Your task to perform on an android device: delete a single message in the gmail app Image 0: 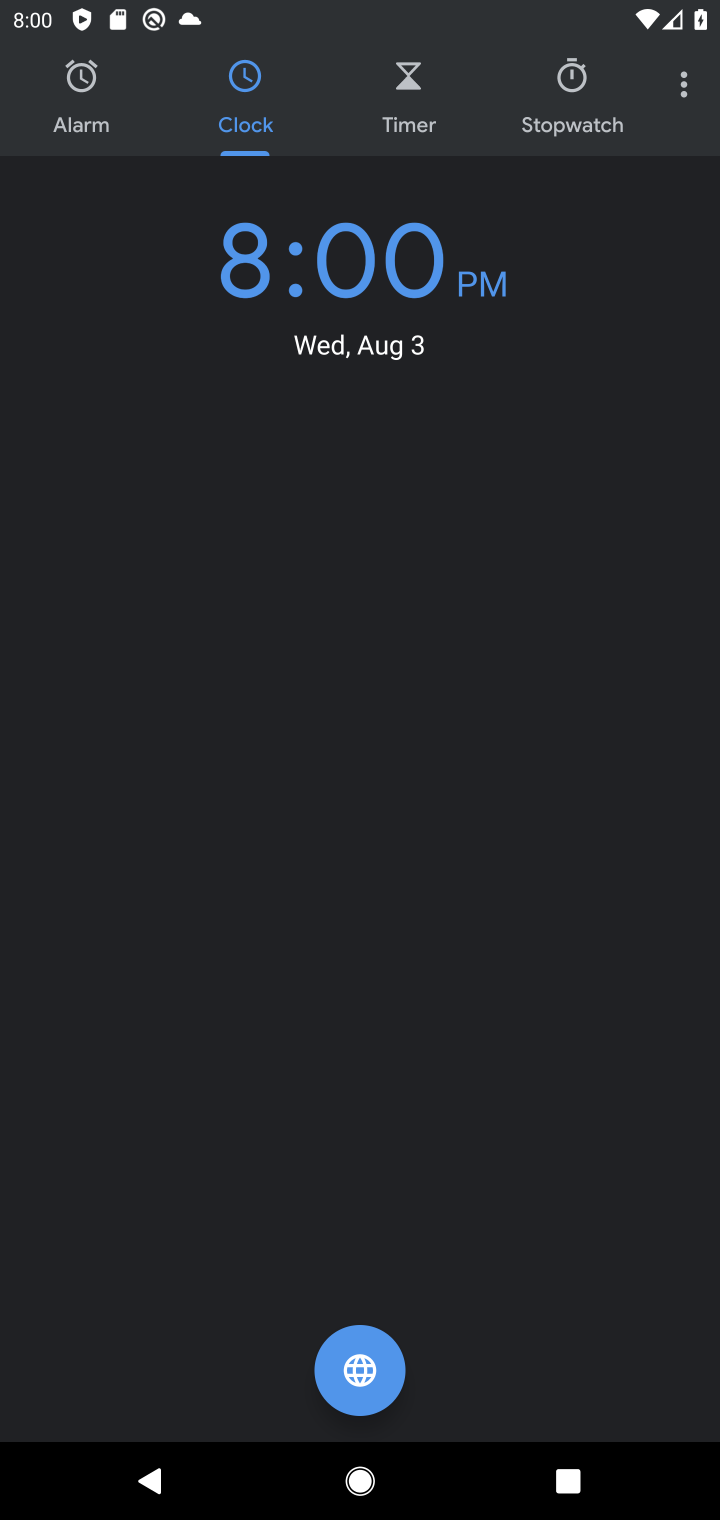
Step 0: press home button
Your task to perform on an android device: delete a single message in the gmail app Image 1: 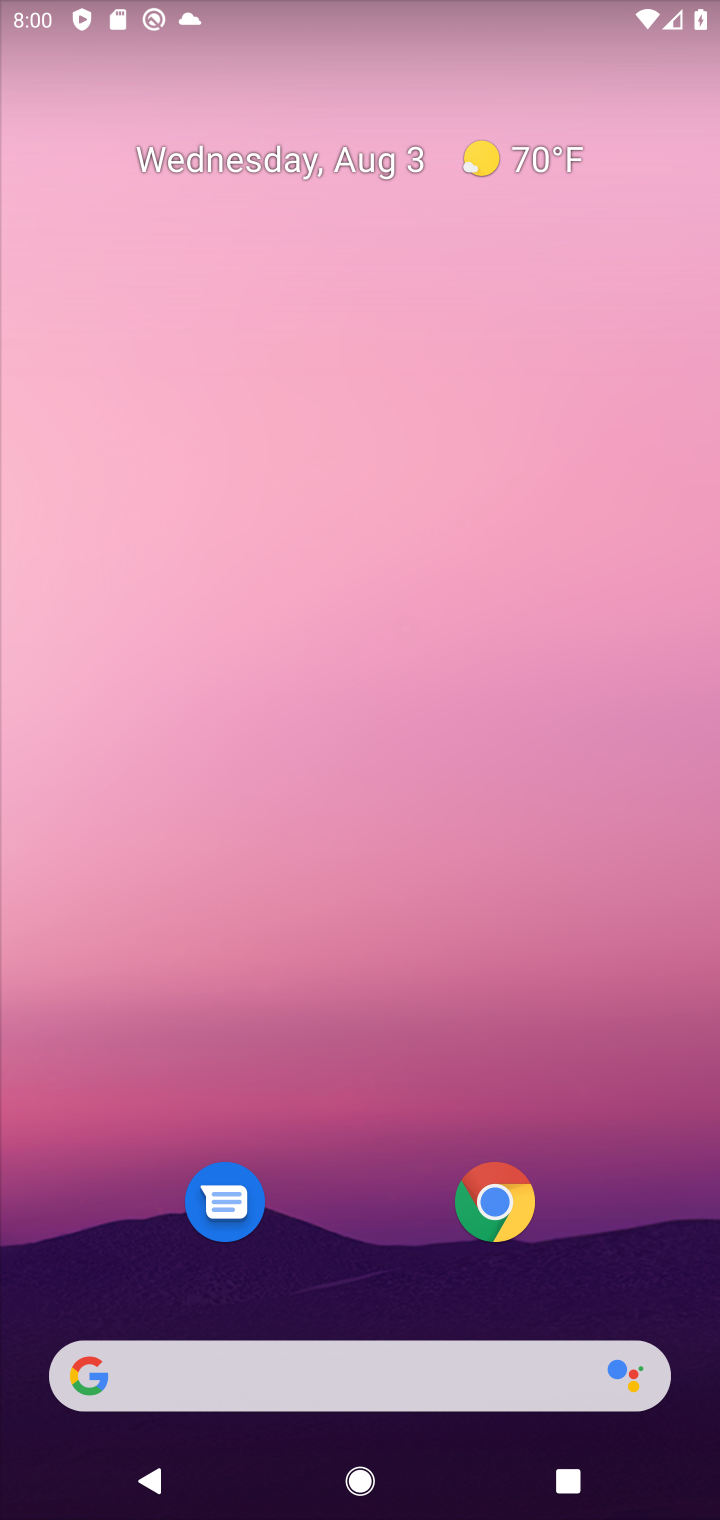
Step 1: drag from (303, 1378) to (412, 0)
Your task to perform on an android device: delete a single message in the gmail app Image 2: 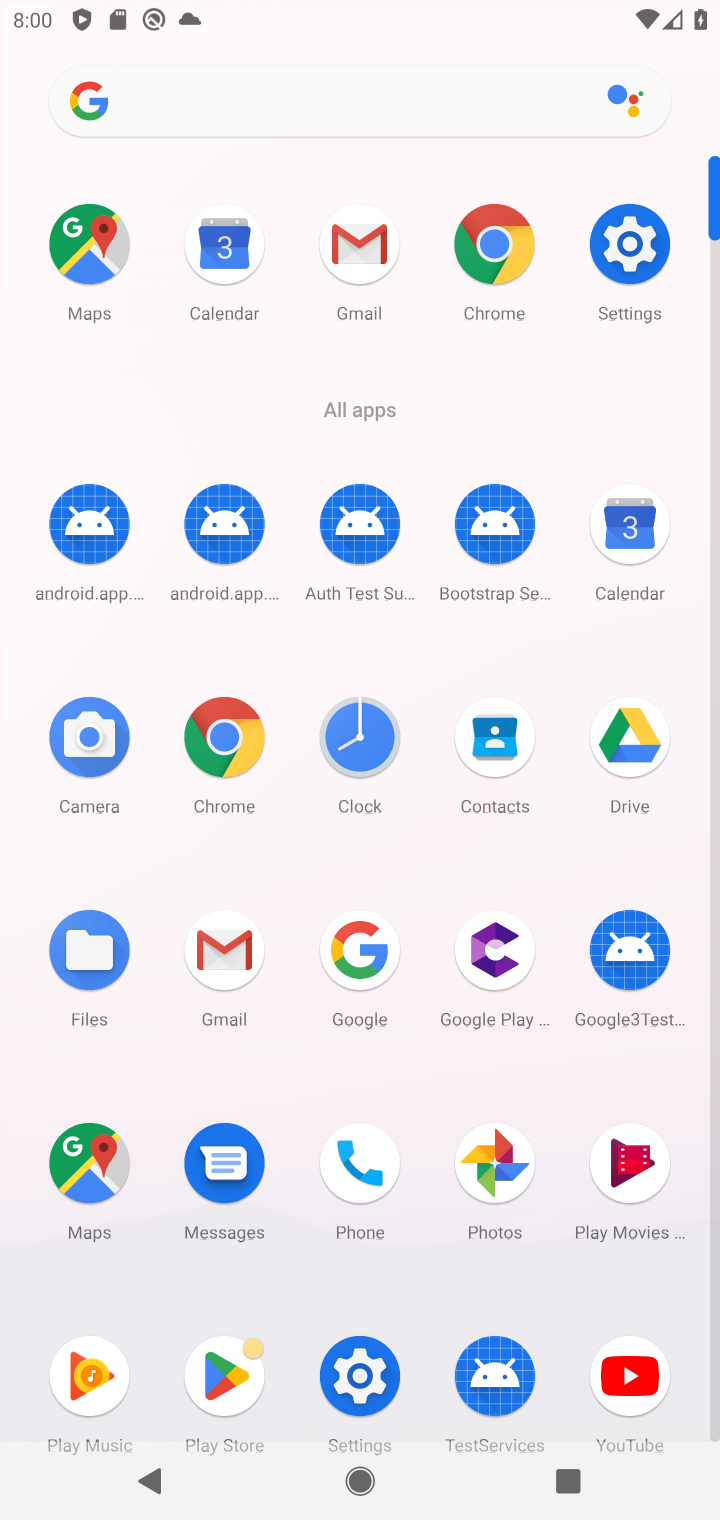
Step 2: click (359, 244)
Your task to perform on an android device: delete a single message in the gmail app Image 3: 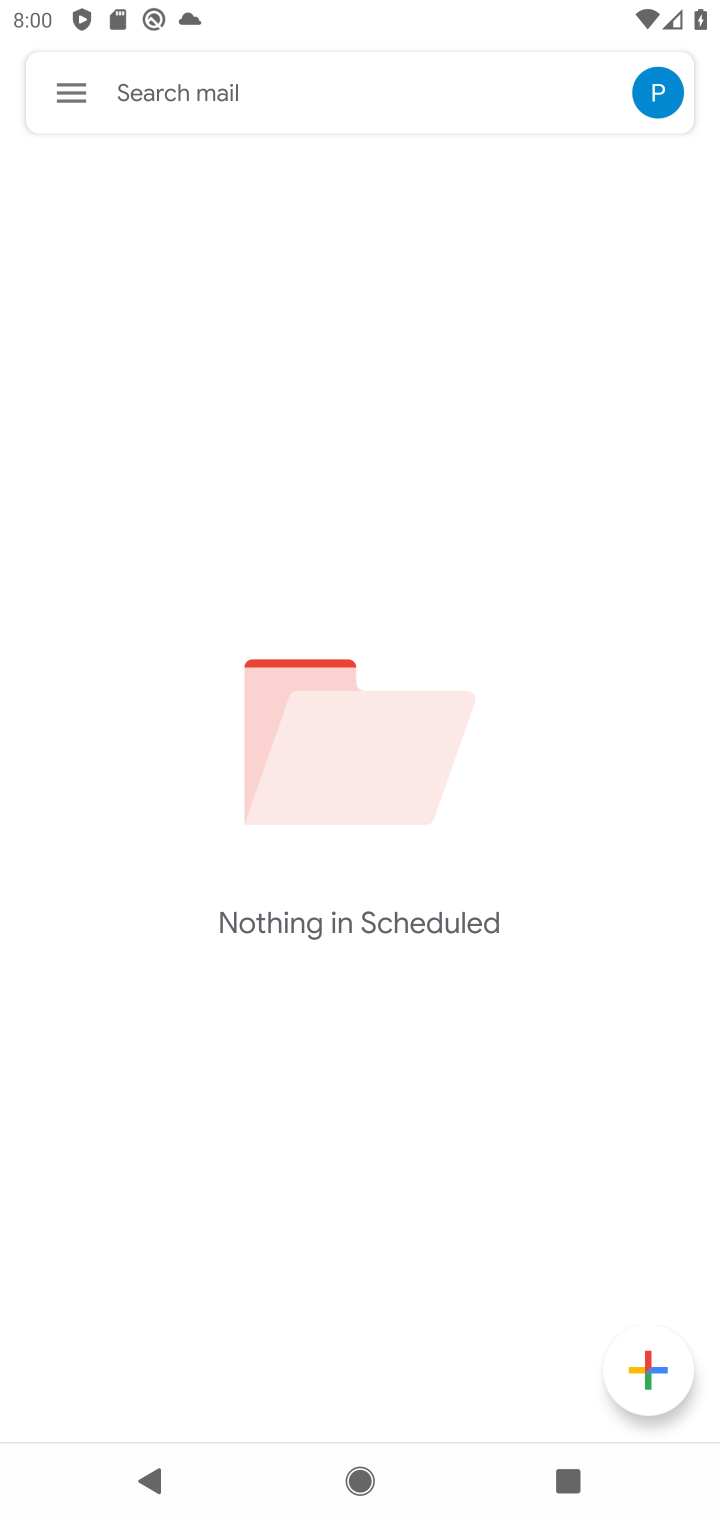
Step 3: click (72, 101)
Your task to perform on an android device: delete a single message in the gmail app Image 4: 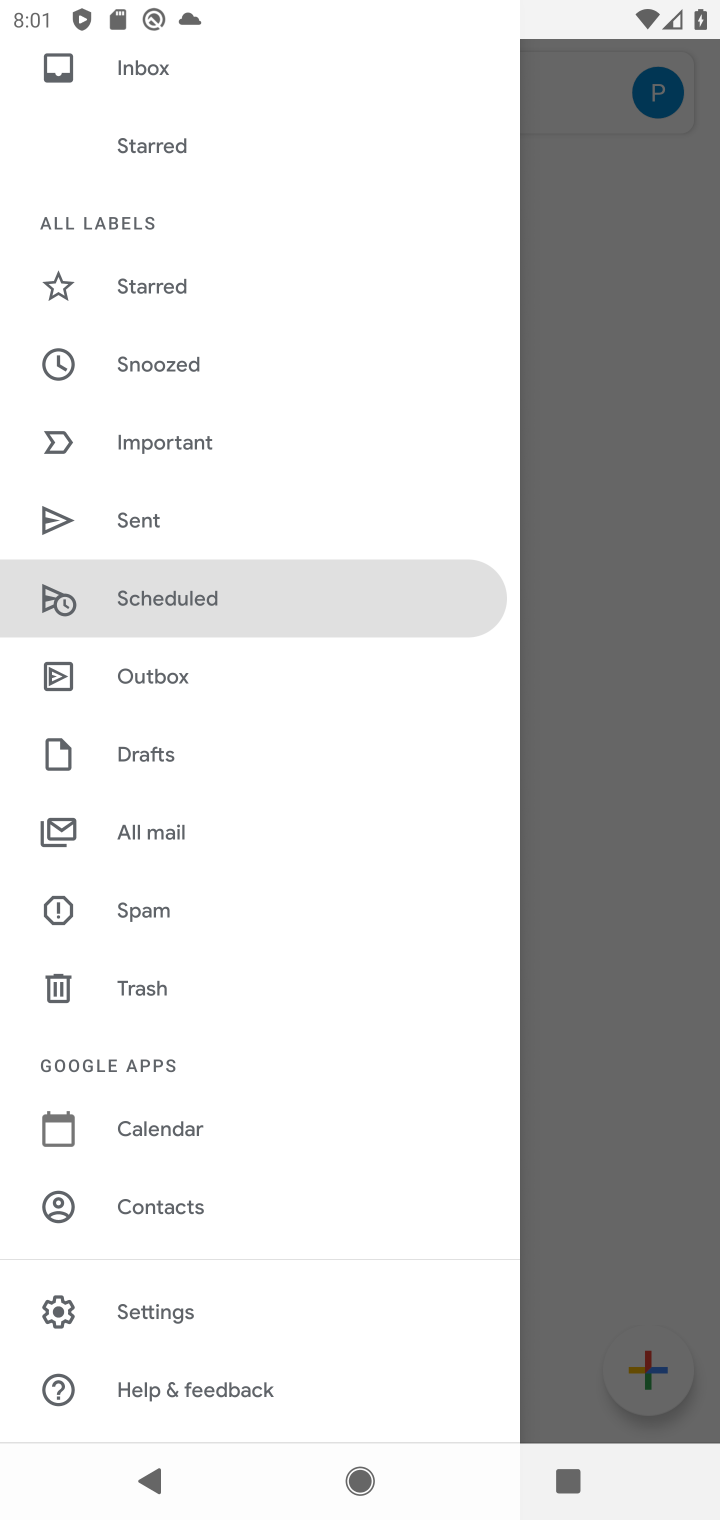
Step 4: click (176, 682)
Your task to perform on an android device: delete a single message in the gmail app Image 5: 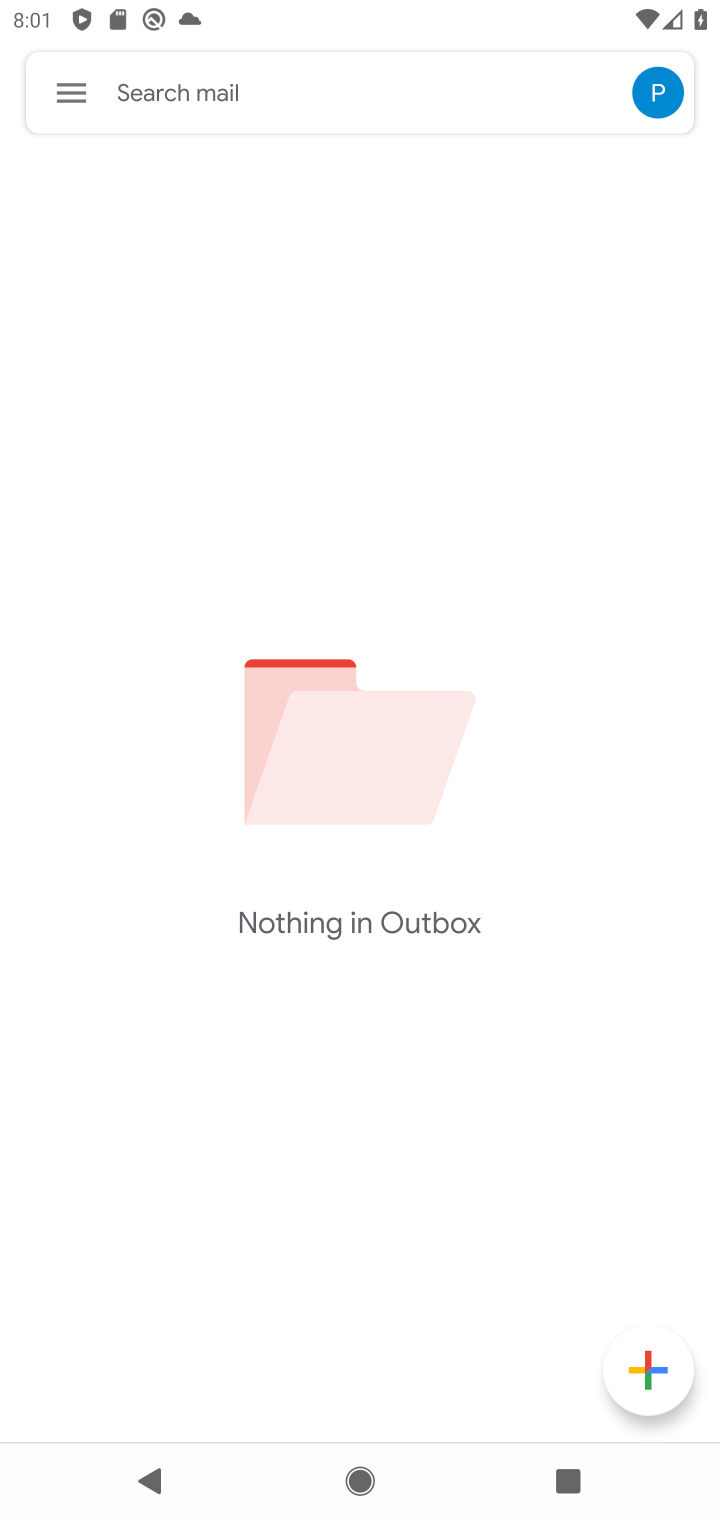
Step 5: click (65, 87)
Your task to perform on an android device: delete a single message in the gmail app Image 6: 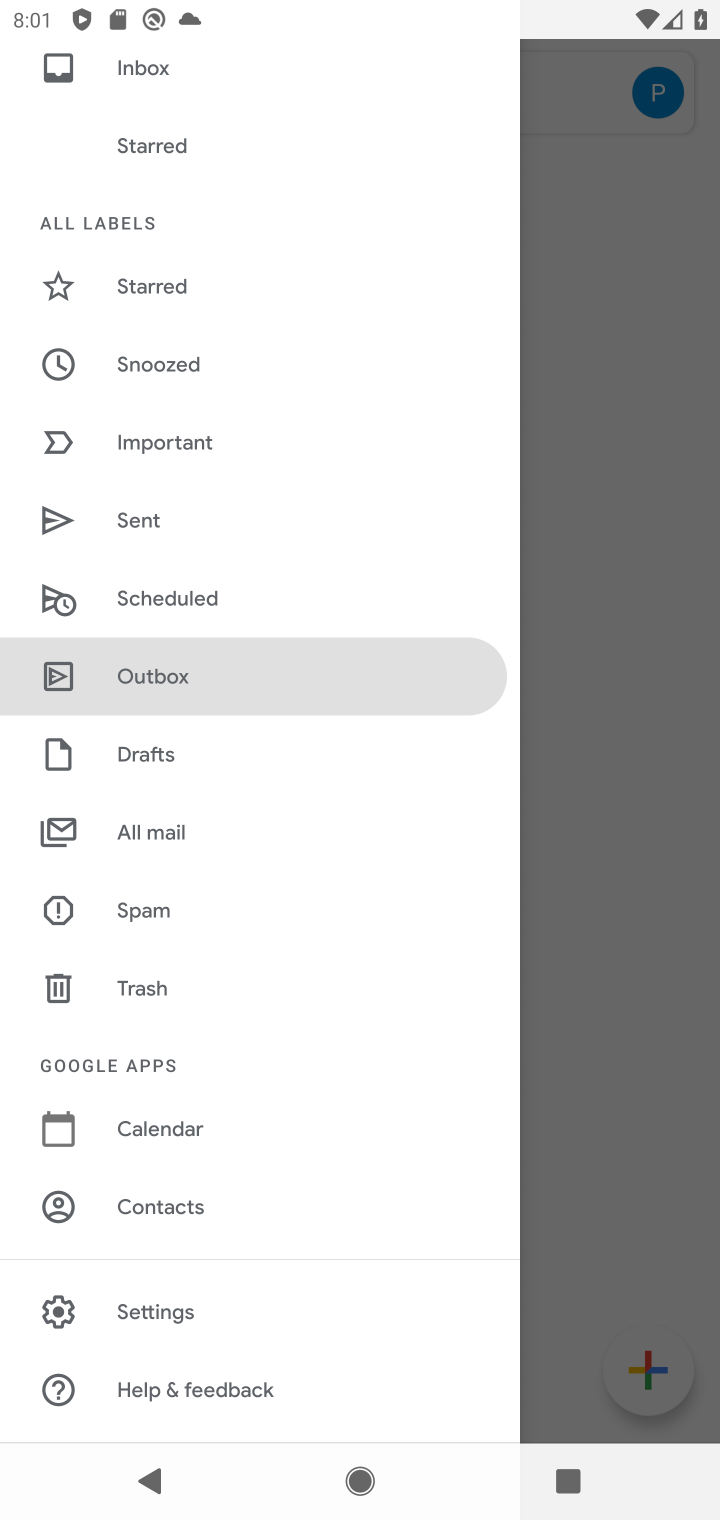
Step 6: click (175, 840)
Your task to perform on an android device: delete a single message in the gmail app Image 7: 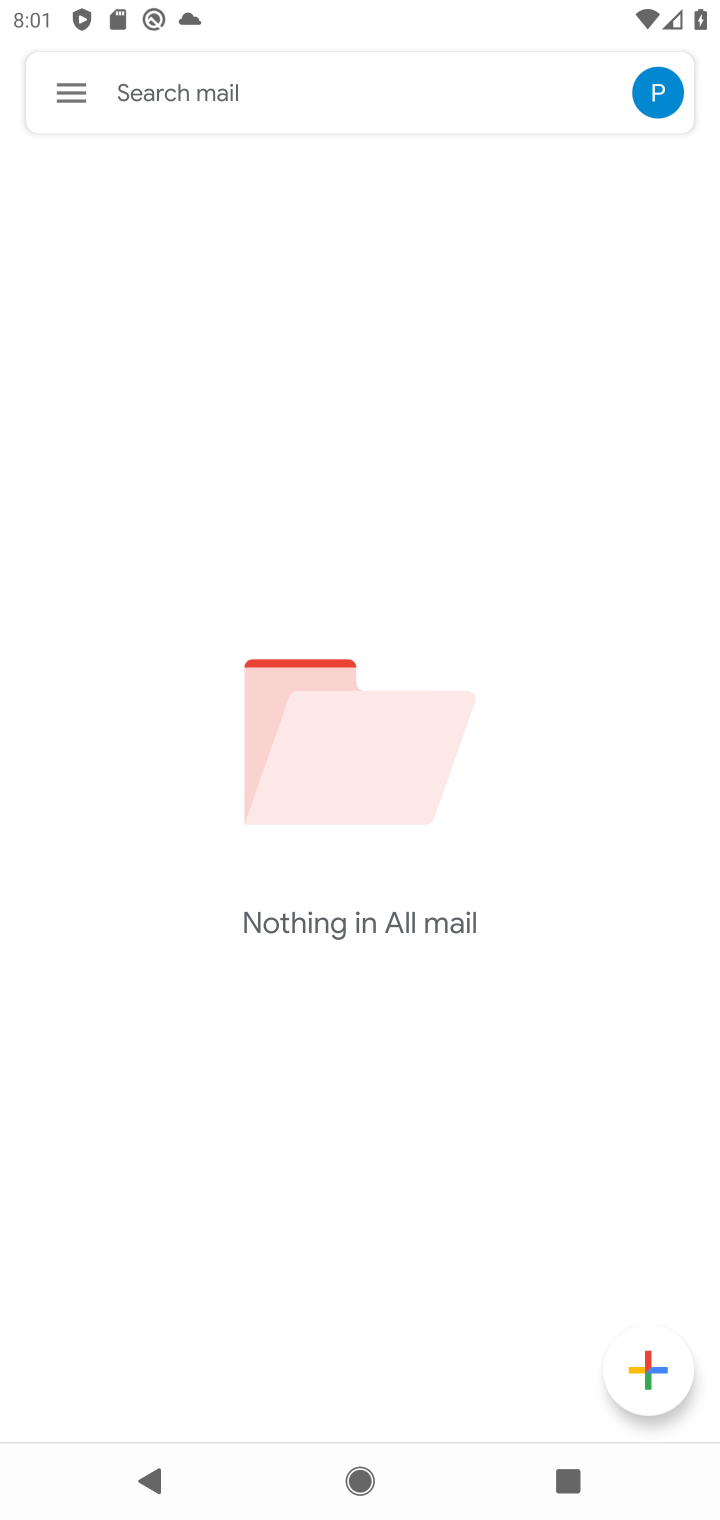
Step 7: click (77, 89)
Your task to perform on an android device: delete a single message in the gmail app Image 8: 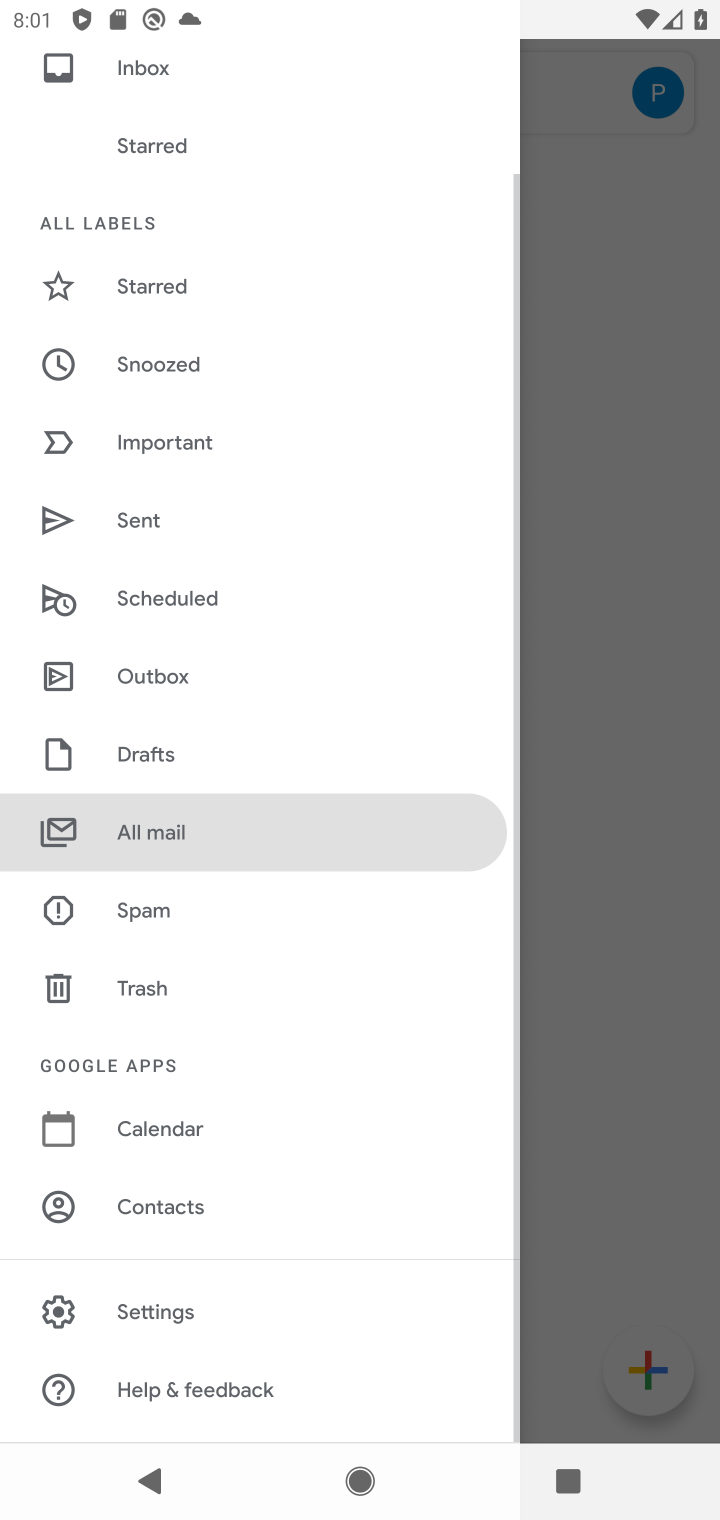
Step 8: drag from (213, 288) to (306, 575)
Your task to perform on an android device: delete a single message in the gmail app Image 9: 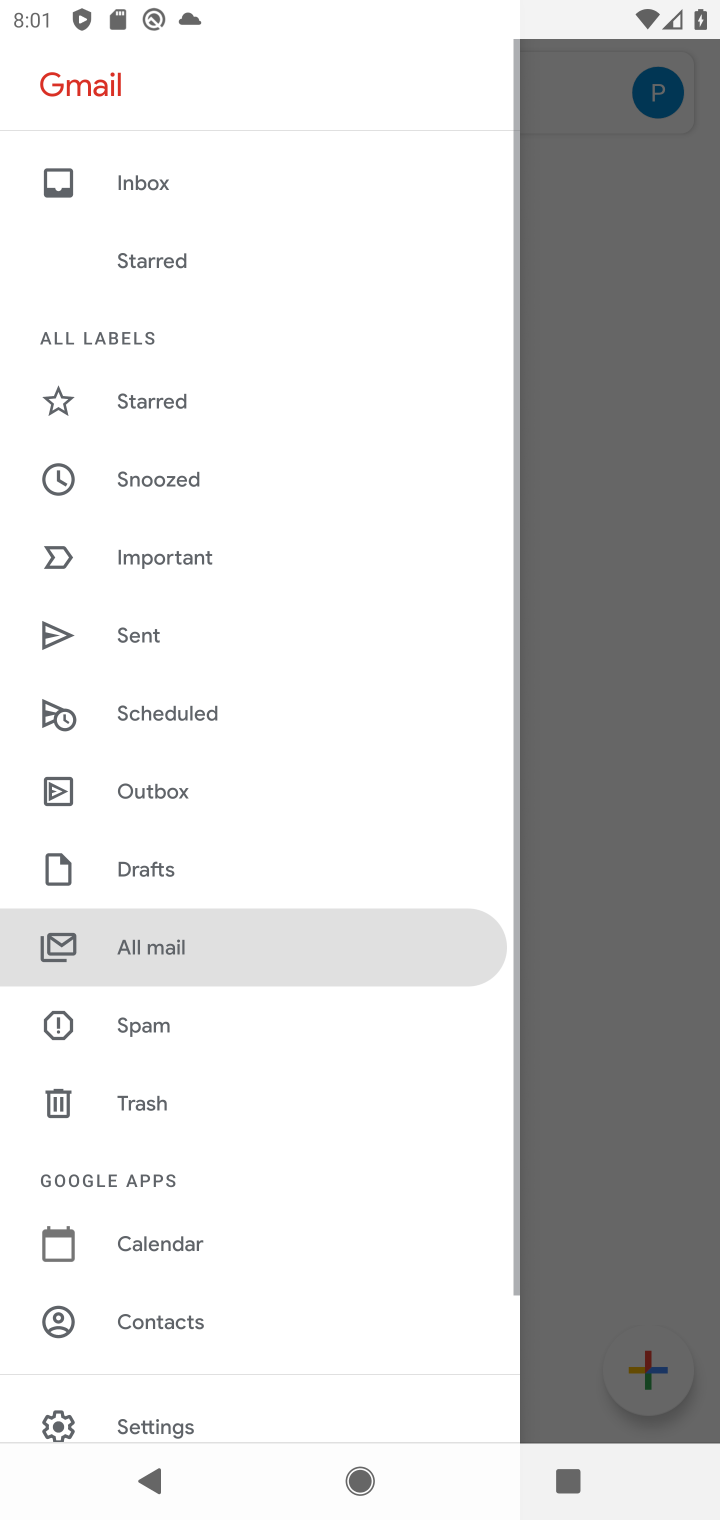
Step 9: click (145, 189)
Your task to perform on an android device: delete a single message in the gmail app Image 10: 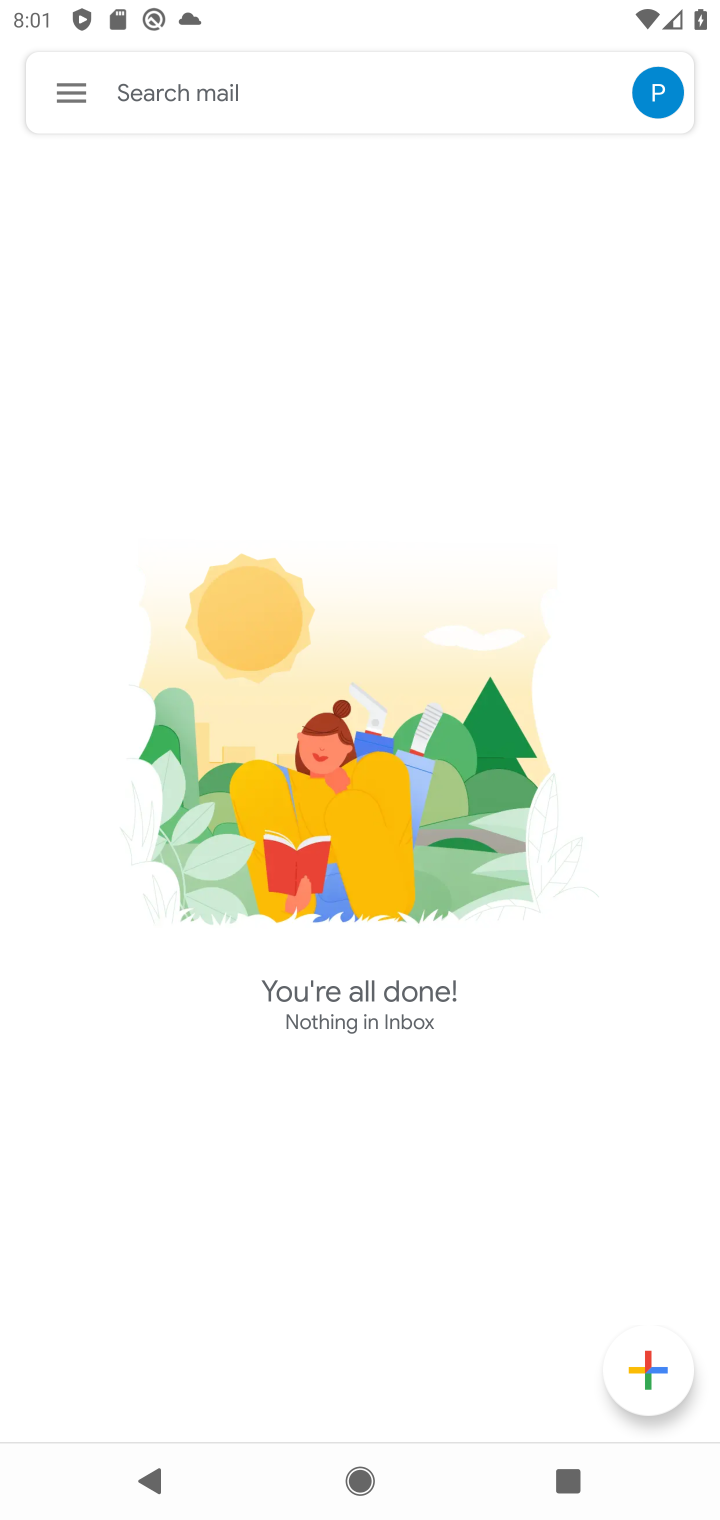
Step 10: click (72, 96)
Your task to perform on an android device: delete a single message in the gmail app Image 11: 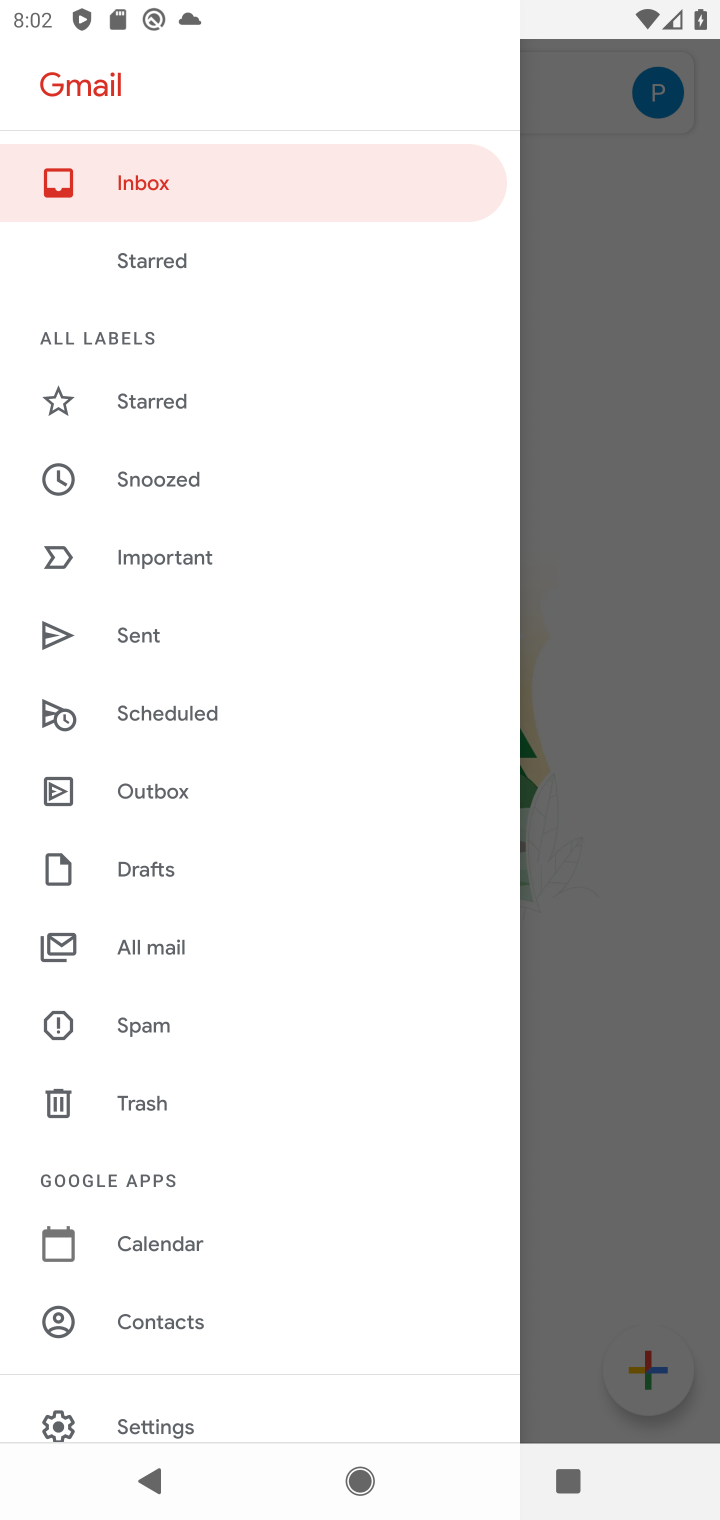
Step 11: click (169, 935)
Your task to perform on an android device: delete a single message in the gmail app Image 12: 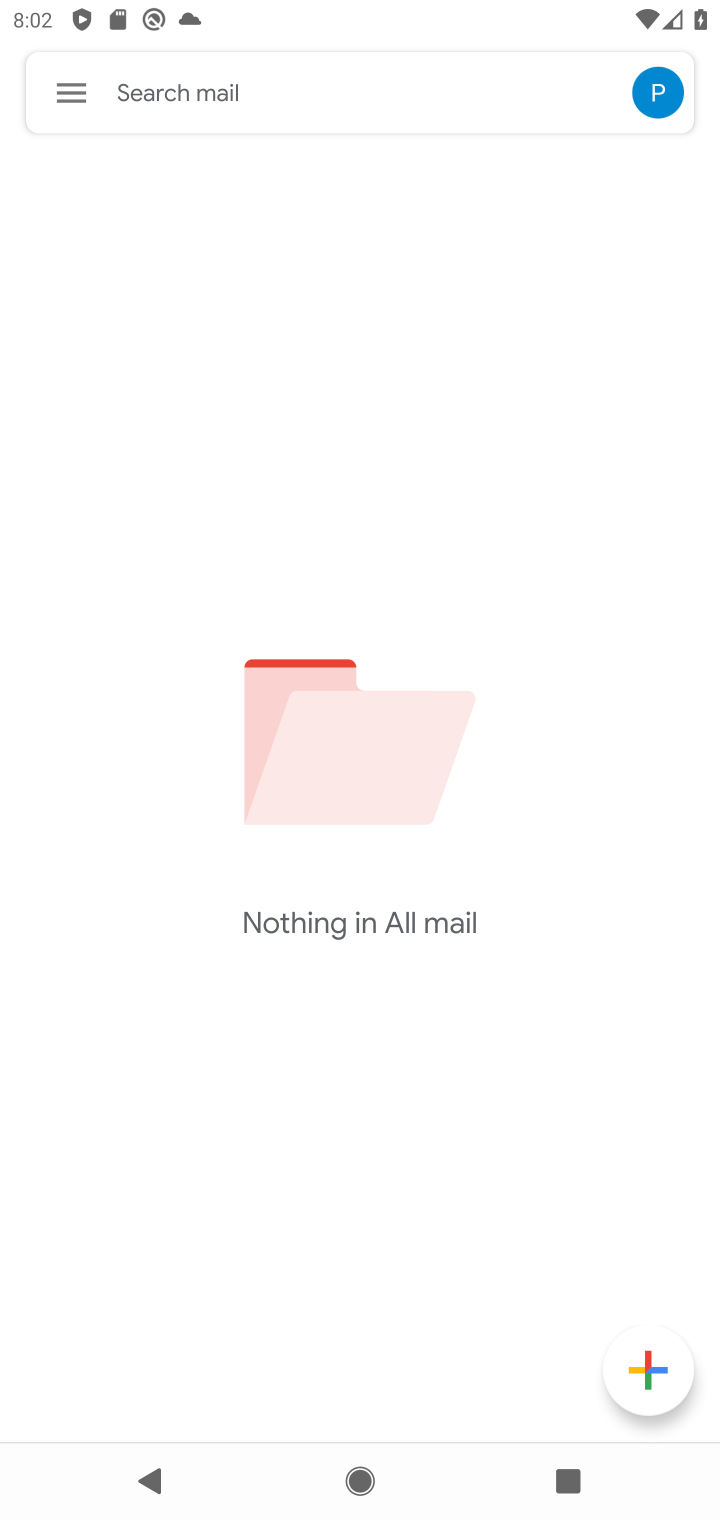
Step 12: click (62, 99)
Your task to perform on an android device: delete a single message in the gmail app Image 13: 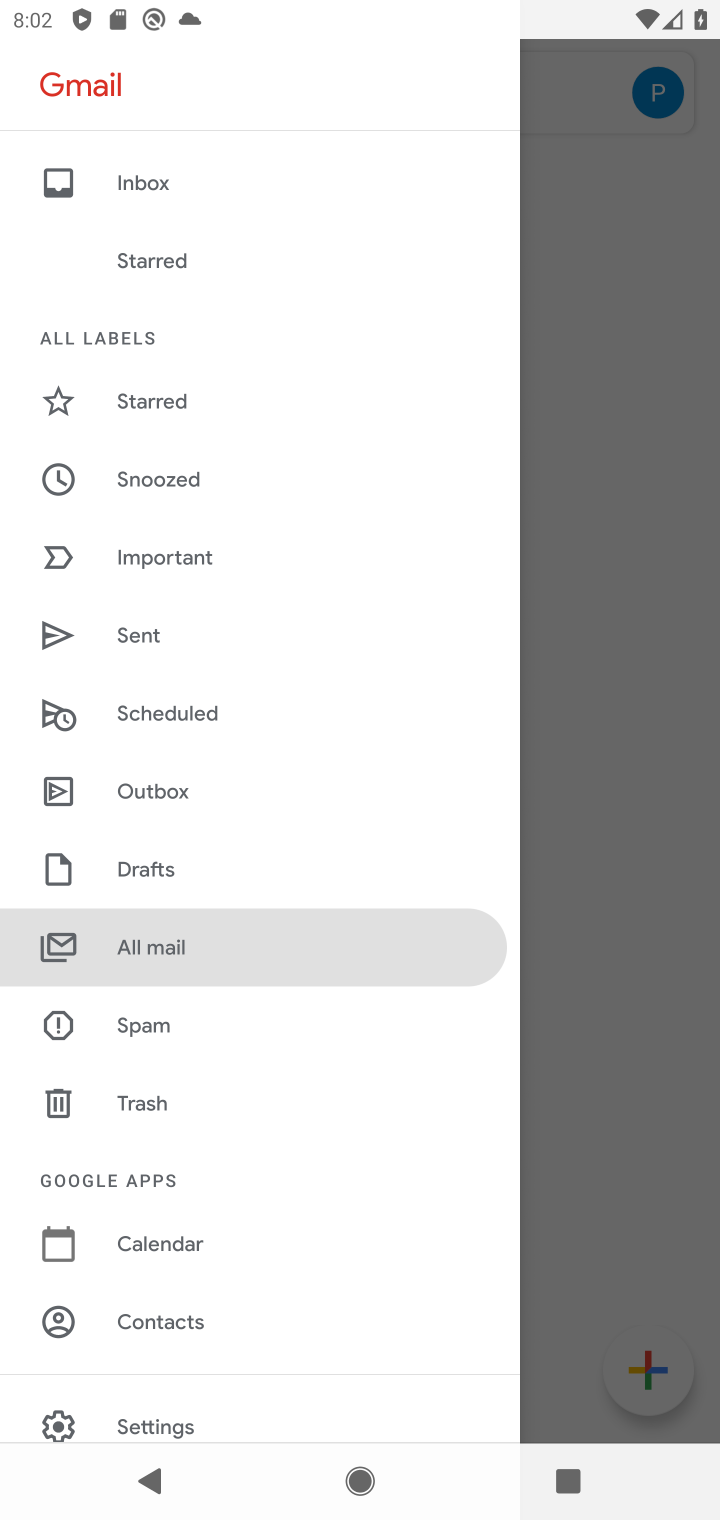
Step 13: click (163, 1027)
Your task to perform on an android device: delete a single message in the gmail app Image 14: 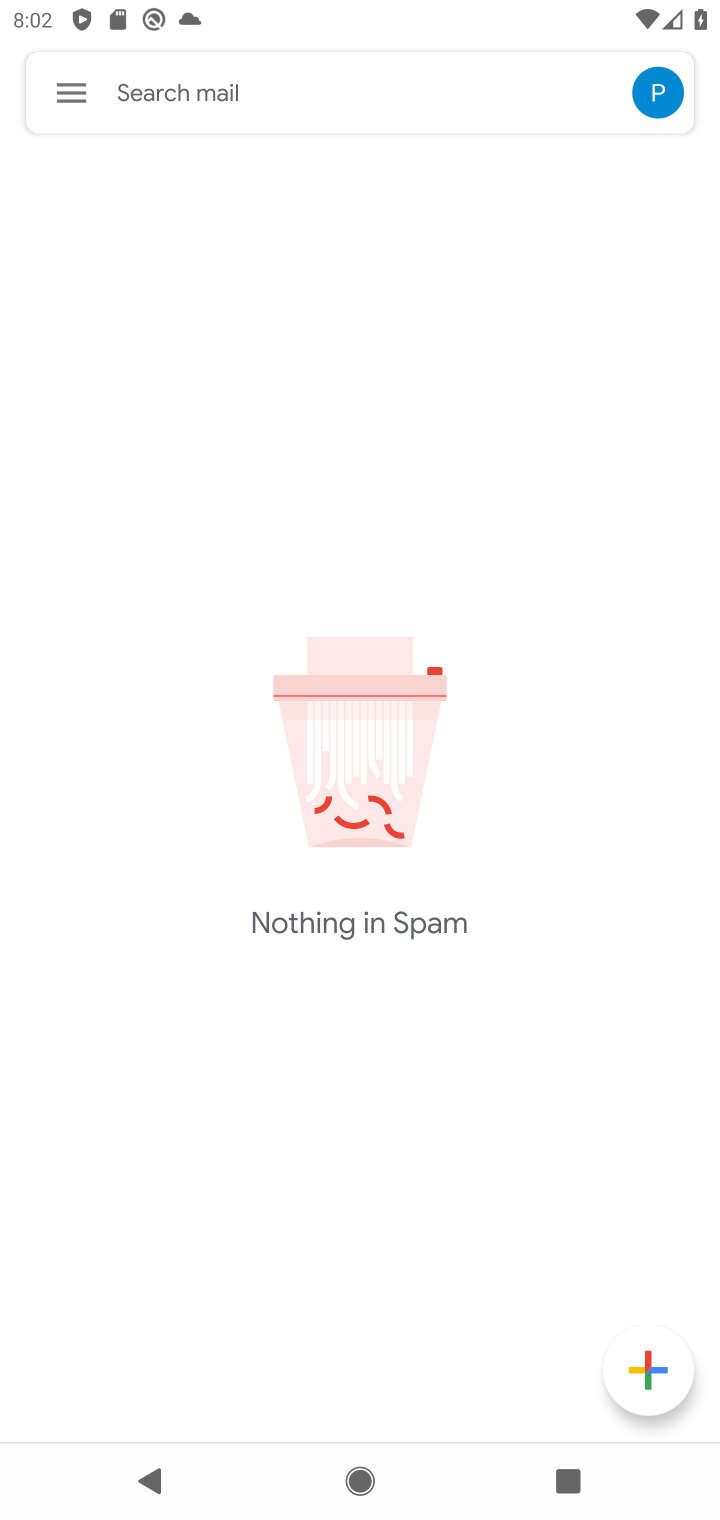
Step 14: click (61, 103)
Your task to perform on an android device: delete a single message in the gmail app Image 15: 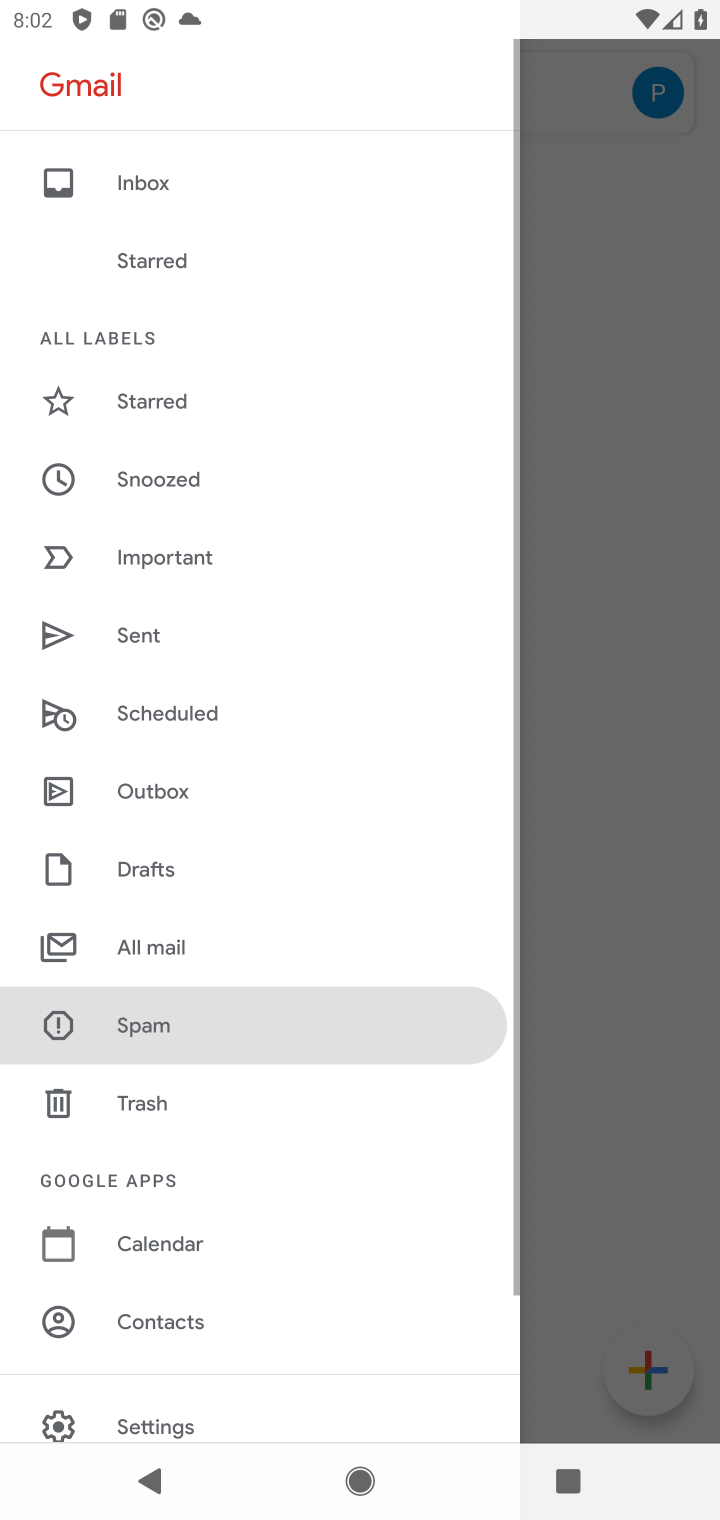
Step 15: click (61, 103)
Your task to perform on an android device: delete a single message in the gmail app Image 16: 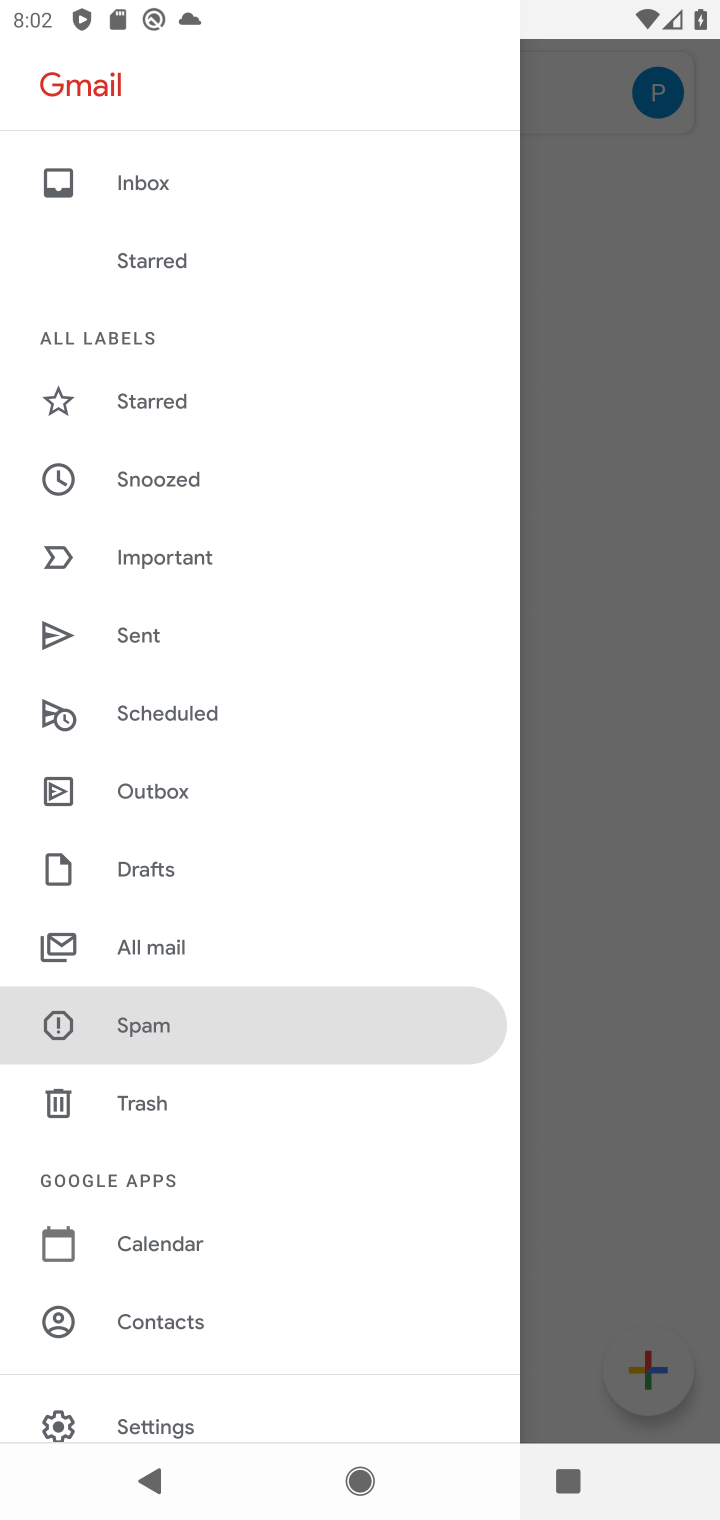
Step 16: click (156, 917)
Your task to perform on an android device: delete a single message in the gmail app Image 17: 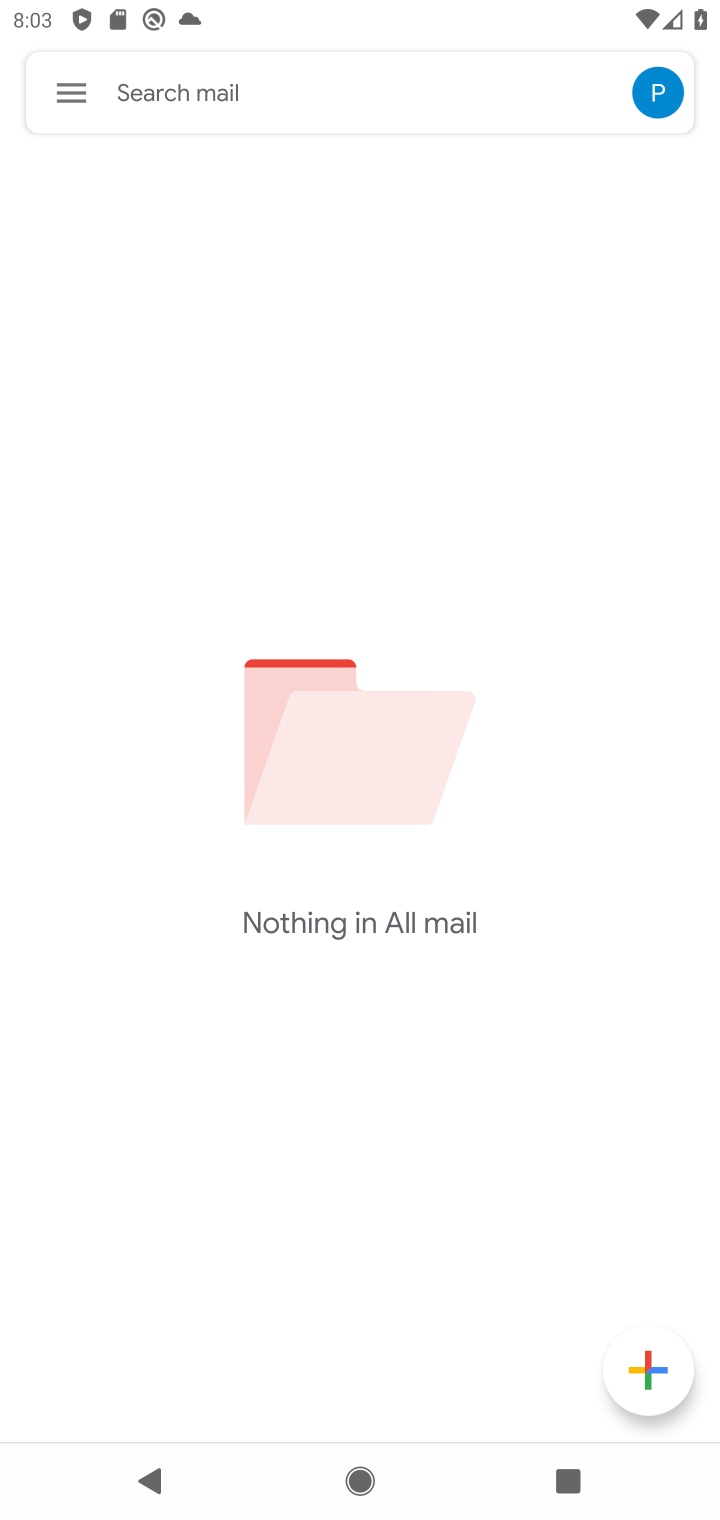
Step 17: task complete